Your task to perform on an android device: Add "acer nitro" to the cart on target Image 0: 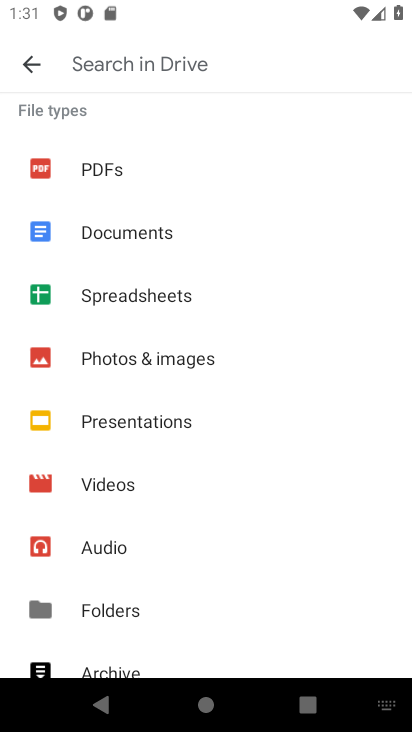
Step 0: press home button
Your task to perform on an android device: Add "acer nitro" to the cart on target Image 1: 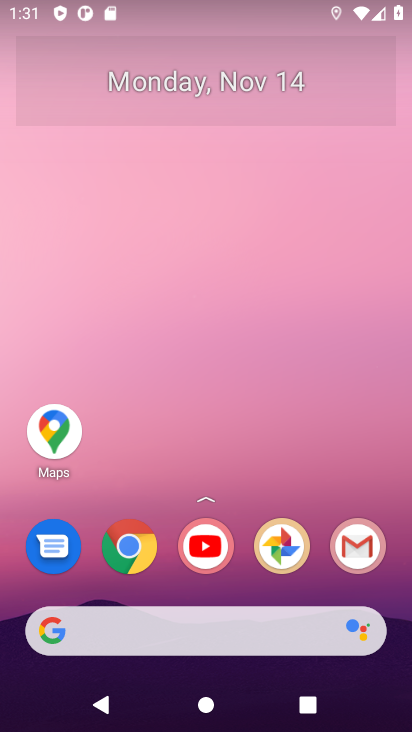
Step 1: drag from (242, 560) to (265, 41)
Your task to perform on an android device: Add "acer nitro" to the cart on target Image 2: 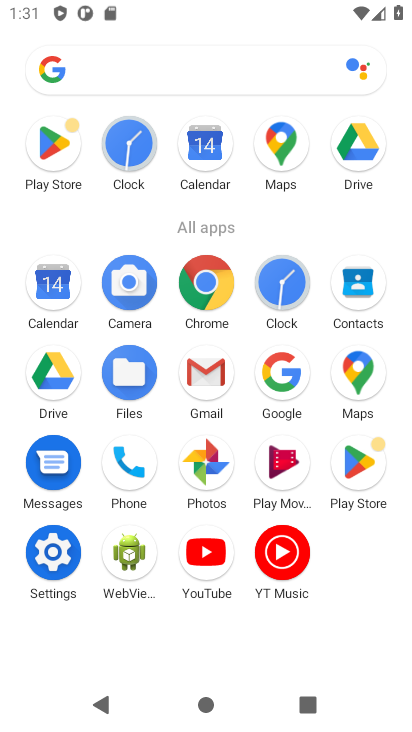
Step 2: click (199, 296)
Your task to perform on an android device: Add "acer nitro" to the cart on target Image 3: 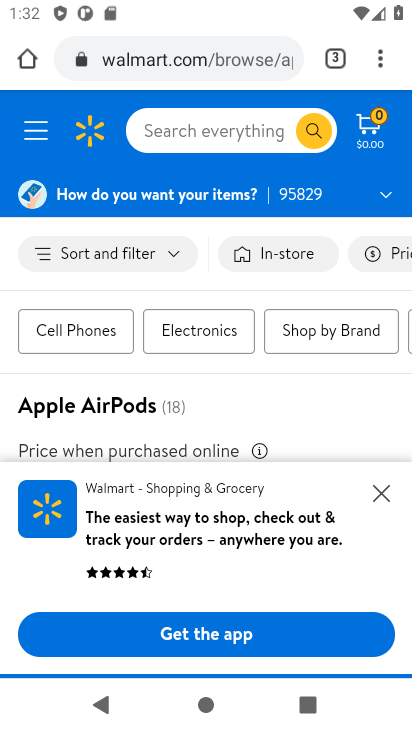
Step 3: click (384, 496)
Your task to perform on an android device: Add "acer nitro" to the cart on target Image 4: 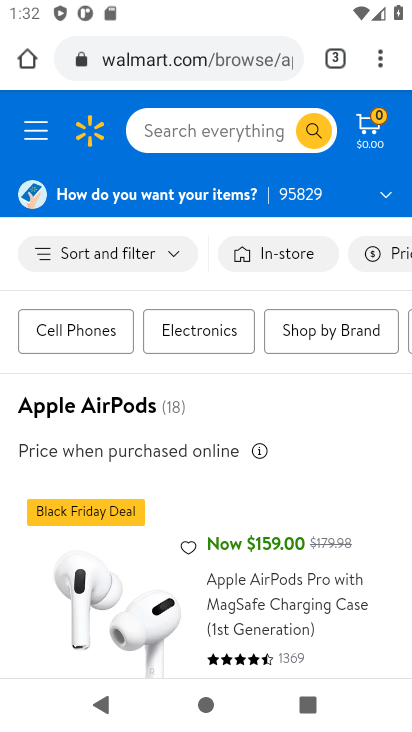
Step 4: drag from (310, 412) to (351, 242)
Your task to perform on an android device: Add "acer nitro" to the cart on target Image 5: 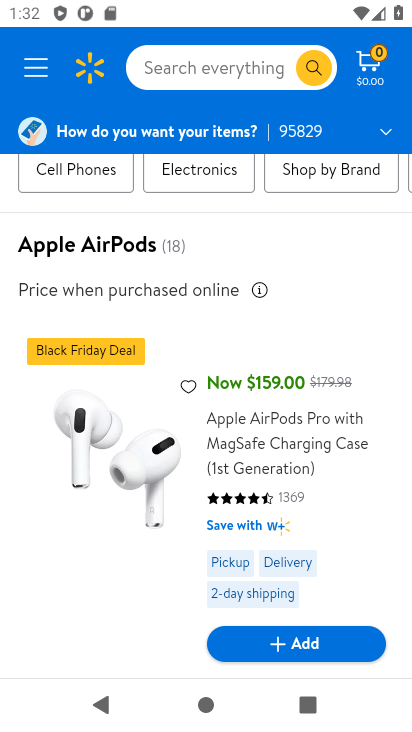
Step 5: click (304, 647)
Your task to perform on an android device: Add "acer nitro" to the cart on target Image 6: 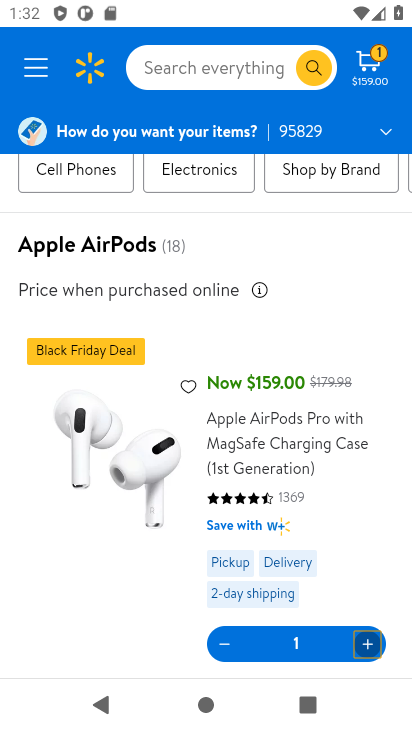
Step 6: task complete